Your task to perform on an android device: show emergency info Image 0: 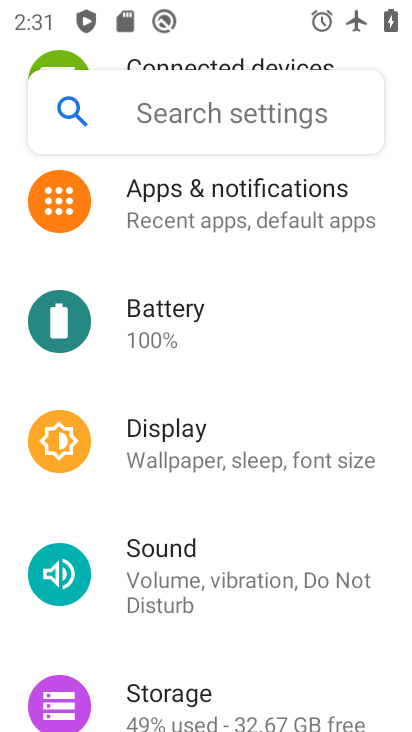
Step 0: drag from (254, 650) to (314, 288)
Your task to perform on an android device: show emergency info Image 1: 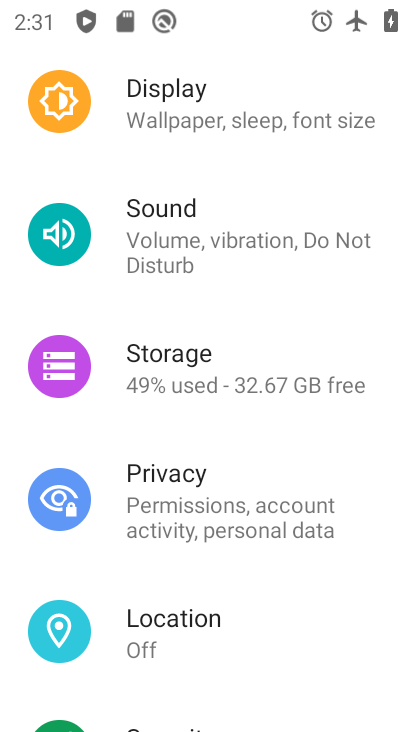
Step 1: drag from (206, 631) to (235, 266)
Your task to perform on an android device: show emergency info Image 2: 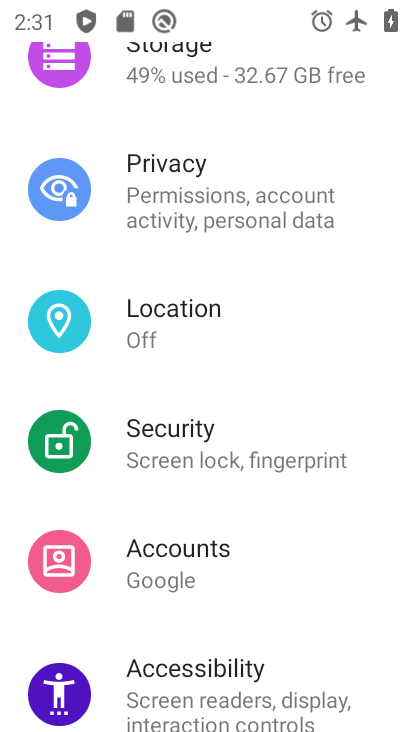
Step 2: drag from (235, 599) to (276, 325)
Your task to perform on an android device: show emergency info Image 3: 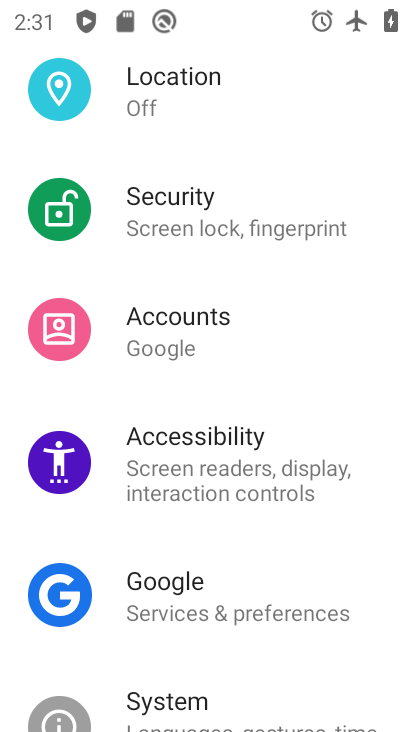
Step 3: drag from (255, 614) to (287, 336)
Your task to perform on an android device: show emergency info Image 4: 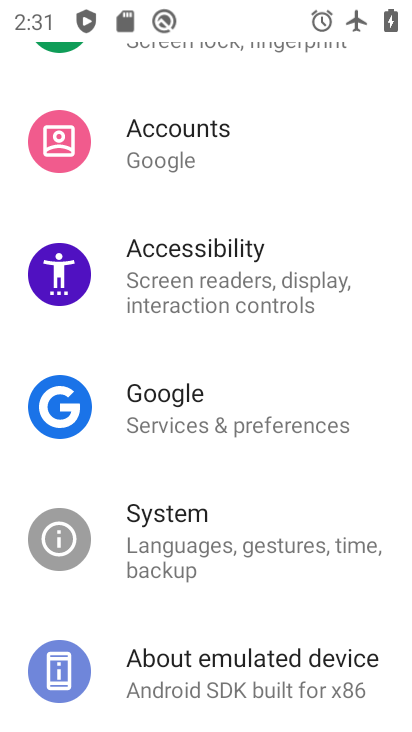
Step 4: drag from (240, 631) to (291, 317)
Your task to perform on an android device: show emergency info Image 5: 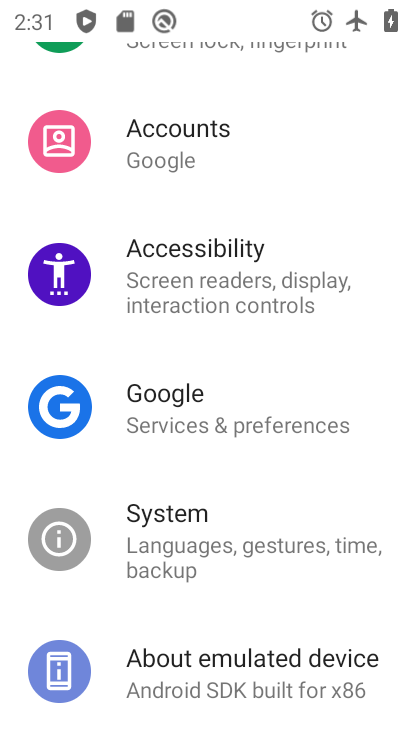
Step 5: click (240, 696)
Your task to perform on an android device: show emergency info Image 6: 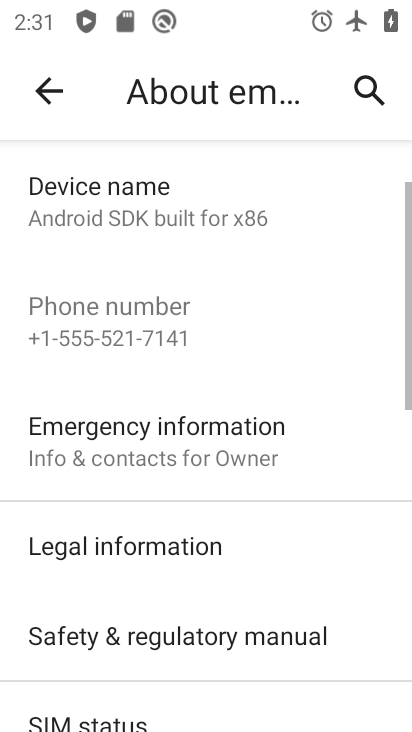
Step 6: click (161, 421)
Your task to perform on an android device: show emergency info Image 7: 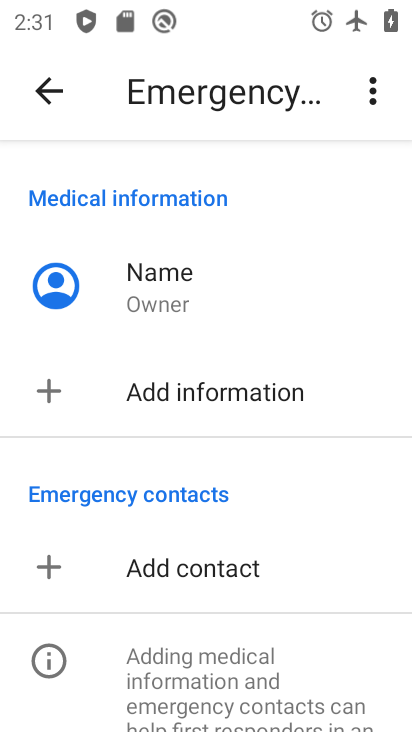
Step 7: task complete